Your task to perform on an android device: Go to Wikipedia Image 0: 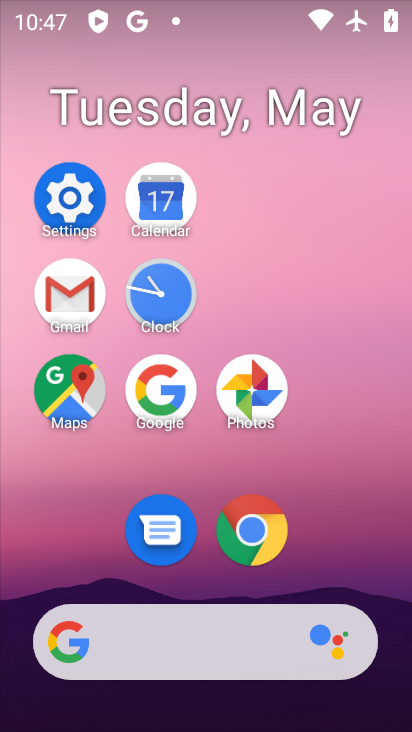
Step 0: click (261, 520)
Your task to perform on an android device: Go to Wikipedia Image 1: 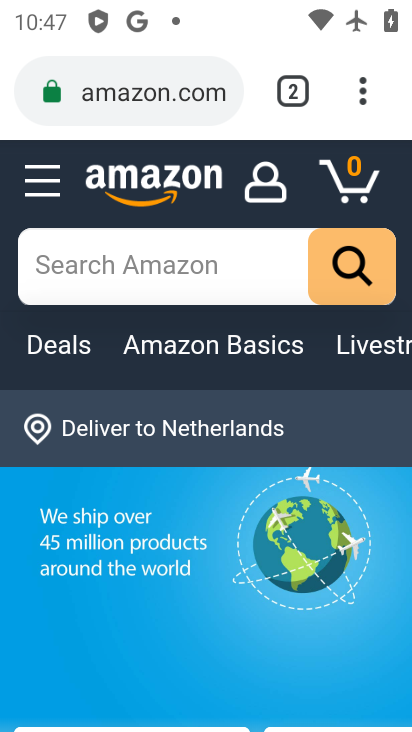
Step 1: click (288, 82)
Your task to perform on an android device: Go to Wikipedia Image 2: 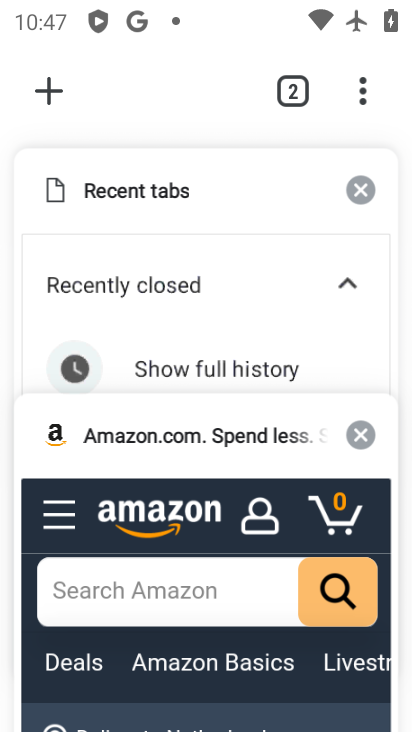
Step 2: click (55, 83)
Your task to perform on an android device: Go to Wikipedia Image 3: 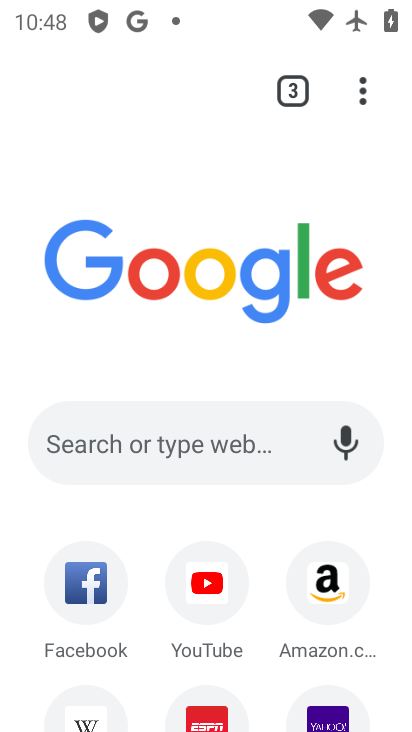
Step 3: click (79, 706)
Your task to perform on an android device: Go to Wikipedia Image 4: 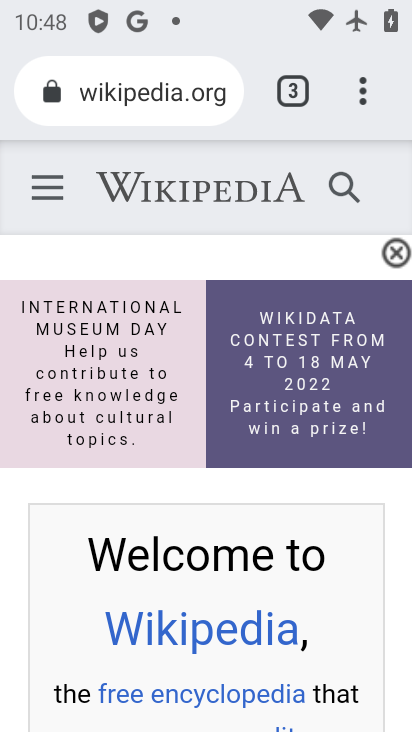
Step 4: task complete